Your task to perform on an android device: Go to calendar. Show me events next week Image 0: 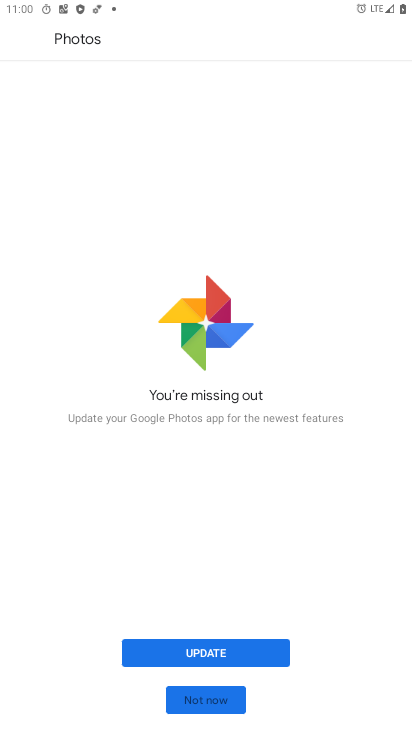
Step 0: press home button
Your task to perform on an android device: Go to calendar. Show me events next week Image 1: 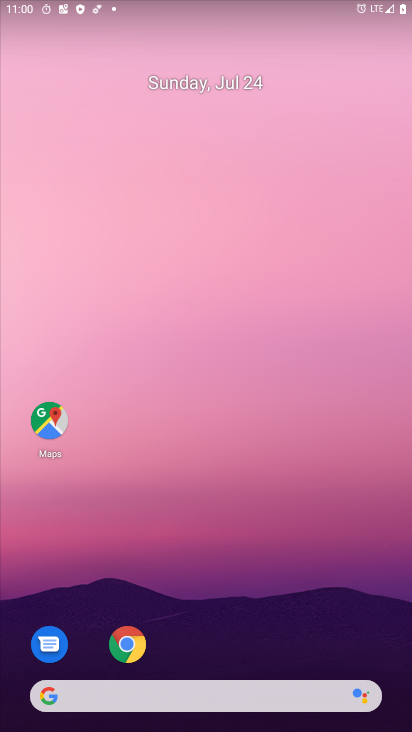
Step 1: drag from (201, 659) to (268, 212)
Your task to perform on an android device: Go to calendar. Show me events next week Image 2: 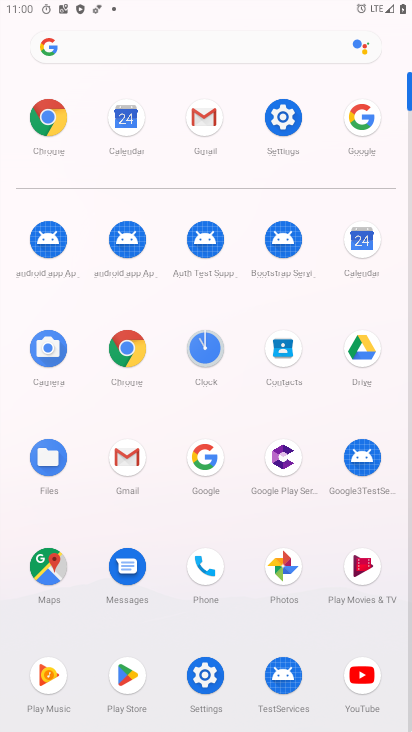
Step 2: click (356, 245)
Your task to perform on an android device: Go to calendar. Show me events next week Image 3: 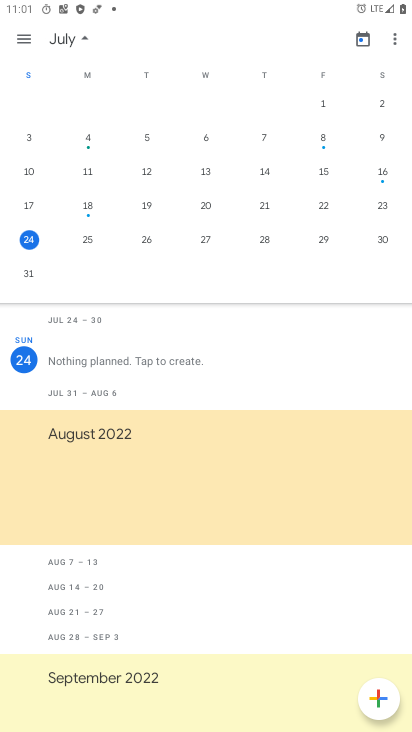
Step 3: drag from (390, 241) to (0, 216)
Your task to perform on an android device: Go to calendar. Show me events next week Image 4: 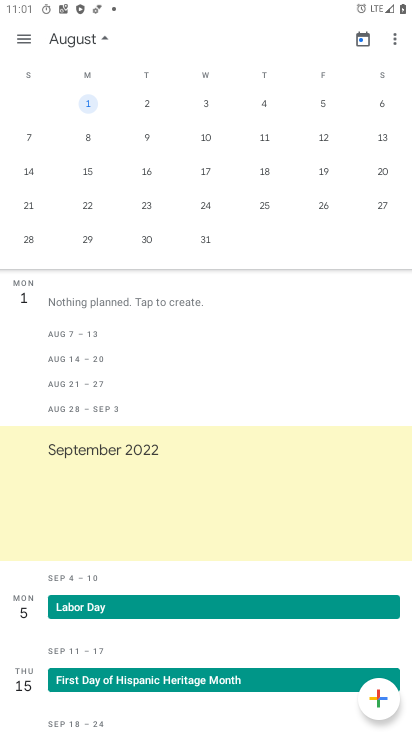
Step 4: click (89, 105)
Your task to perform on an android device: Go to calendar. Show me events next week Image 5: 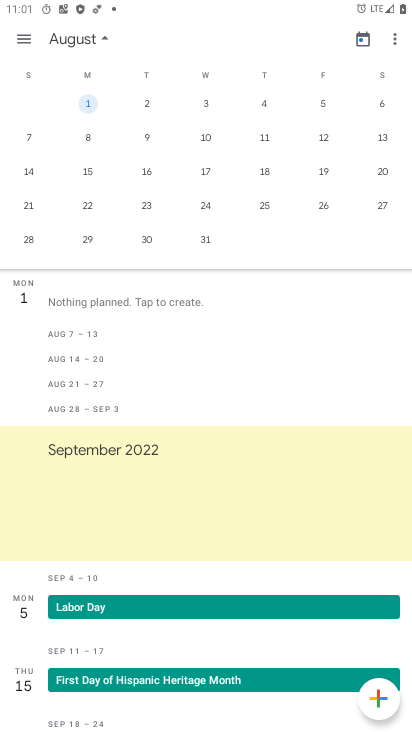
Step 5: click (144, 100)
Your task to perform on an android device: Go to calendar. Show me events next week Image 6: 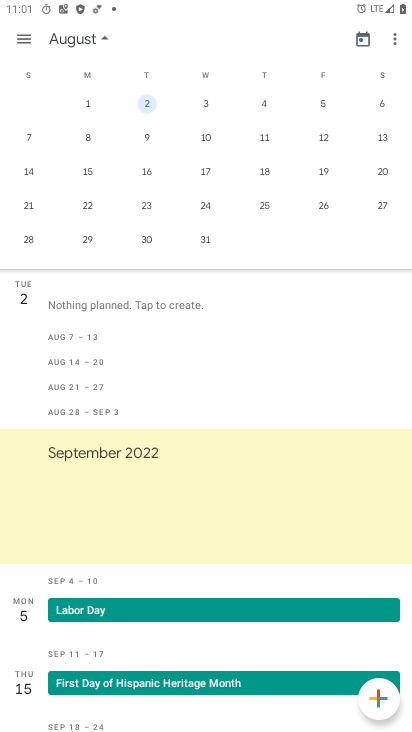
Step 6: click (209, 98)
Your task to perform on an android device: Go to calendar. Show me events next week Image 7: 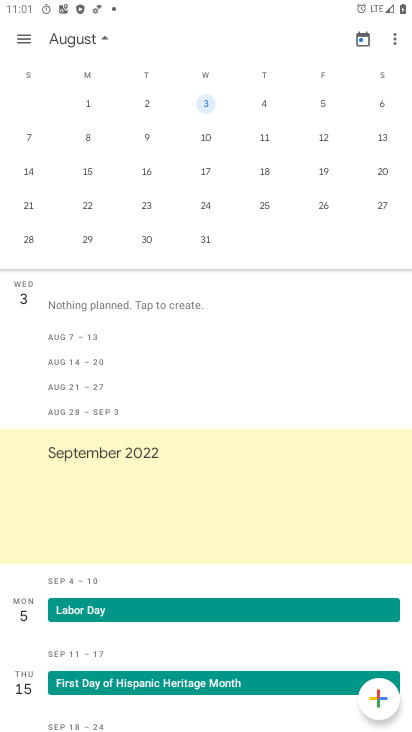
Step 7: click (248, 108)
Your task to perform on an android device: Go to calendar. Show me events next week Image 8: 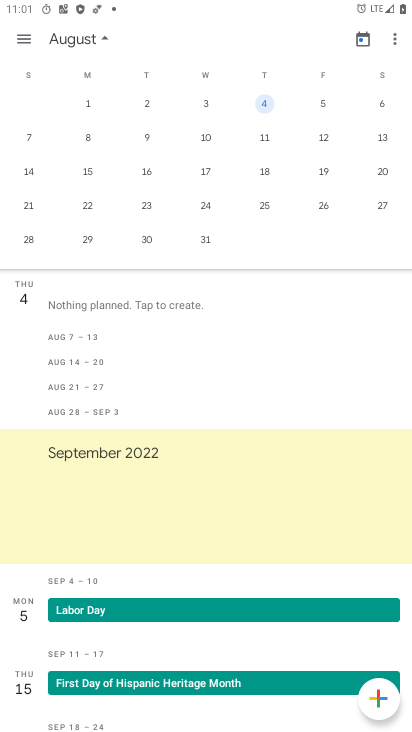
Step 8: click (320, 99)
Your task to perform on an android device: Go to calendar. Show me events next week Image 9: 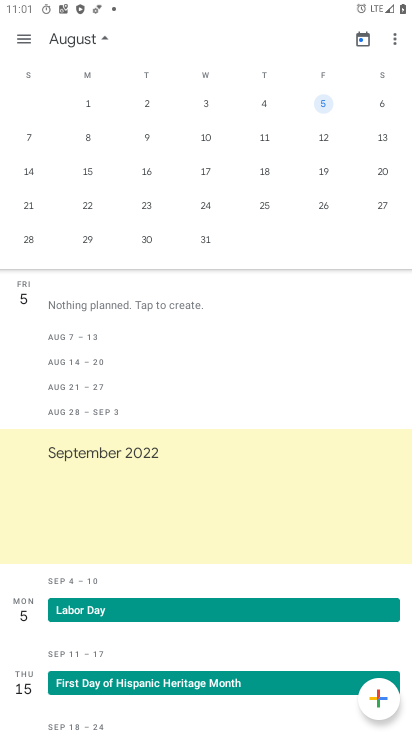
Step 9: click (381, 102)
Your task to perform on an android device: Go to calendar. Show me events next week Image 10: 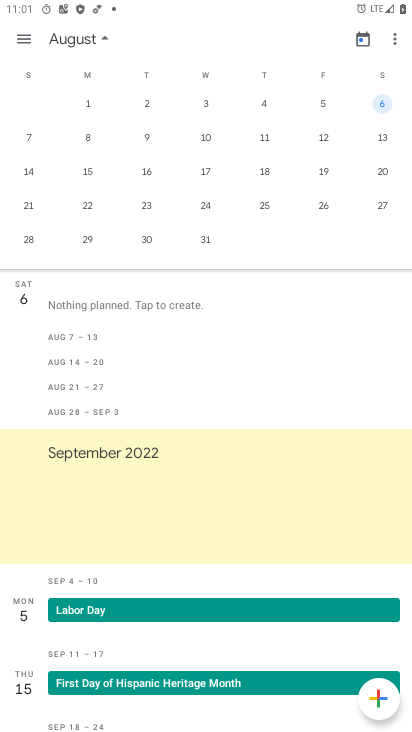
Step 10: task complete